Your task to perform on an android device: Search for pizza restaurants on Maps Image 0: 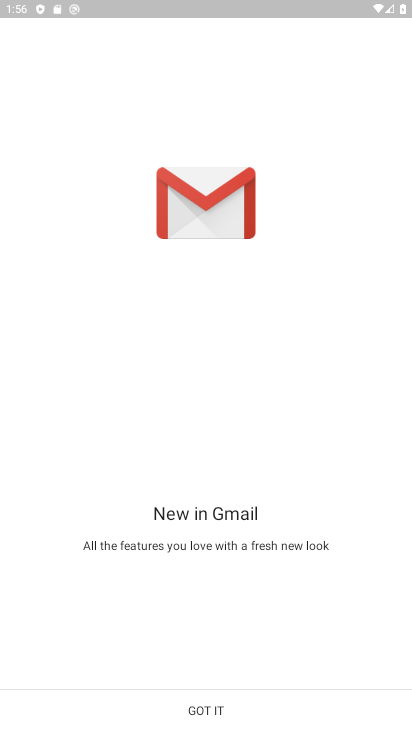
Step 0: press home button
Your task to perform on an android device: Search for pizza restaurants on Maps Image 1: 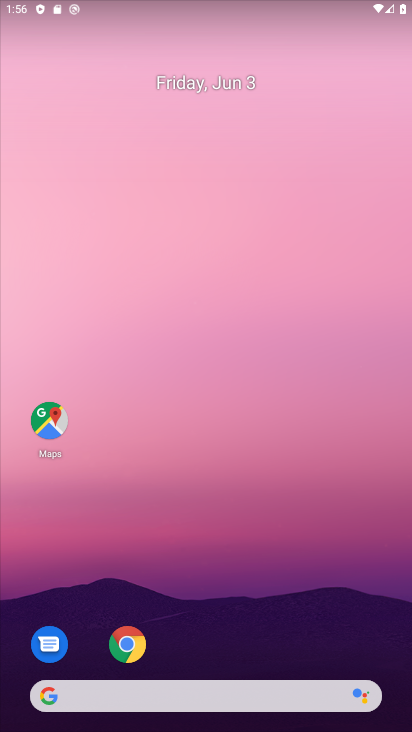
Step 1: click (59, 424)
Your task to perform on an android device: Search for pizza restaurants on Maps Image 2: 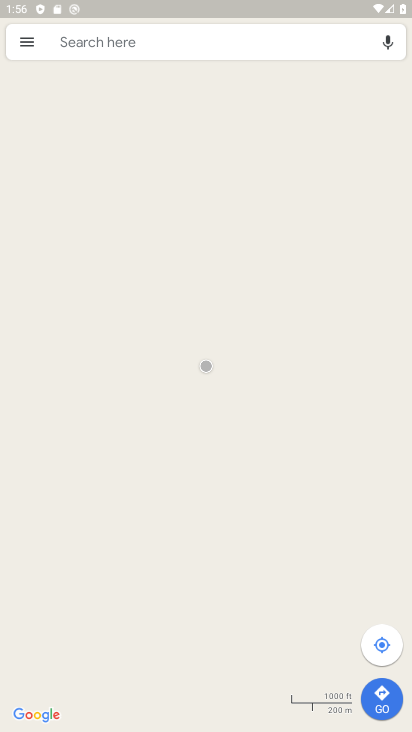
Step 2: click (237, 46)
Your task to perform on an android device: Search for pizza restaurants on Maps Image 3: 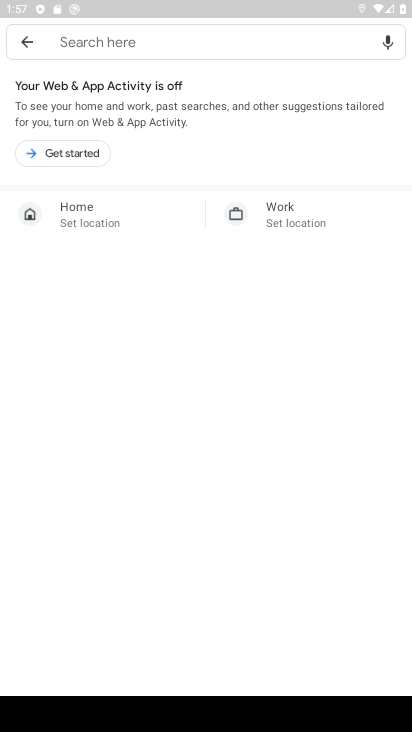
Step 3: type "pizza restaurants"
Your task to perform on an android device: Search for pizza restaurants on Maps Image 4: 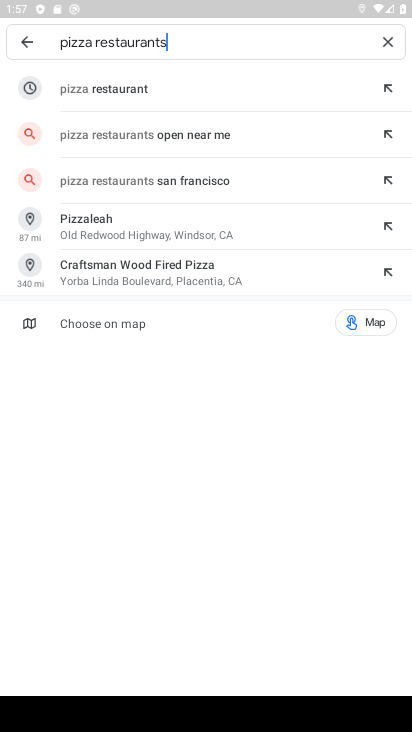
Step 4: click (244, 90)
Your task to perform on an android device: Search for pizza restaurants on Maps Image 5: 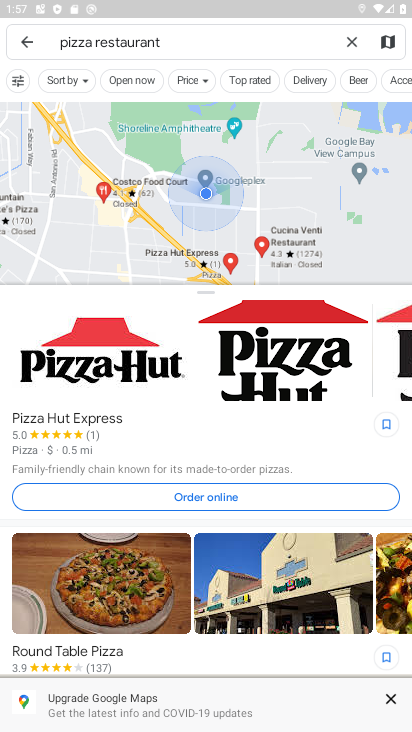
Step 5: task complete